Your task to perform on an android device: Open Google Maps Image 0: 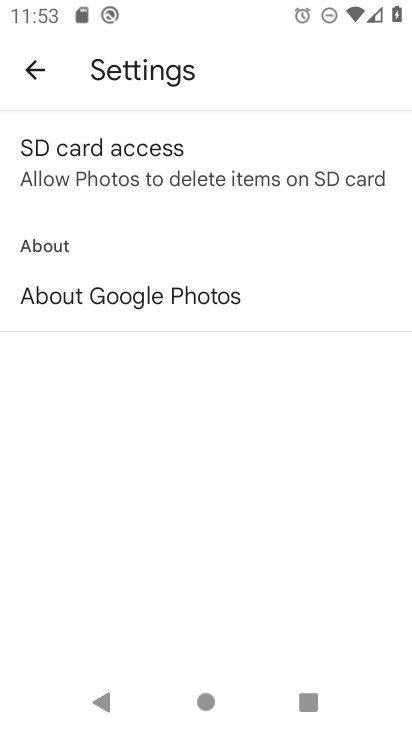
Step 0: press home button
Your task to perform on an android device: Open Google Maps Image 1: 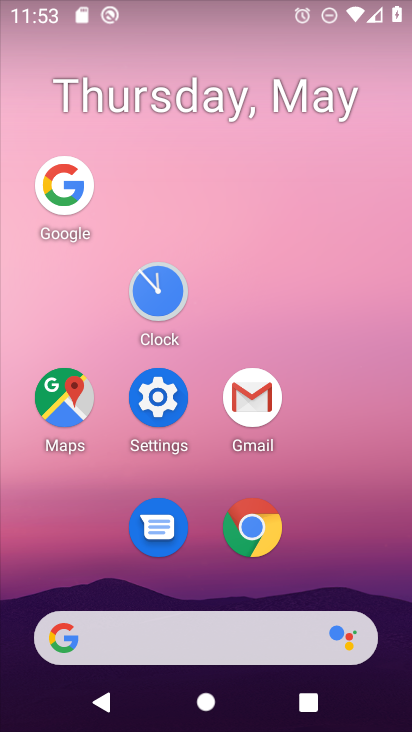
Step 1: click (66, 403)
Your task to perform on an android device: Open Google Maps Image 2: 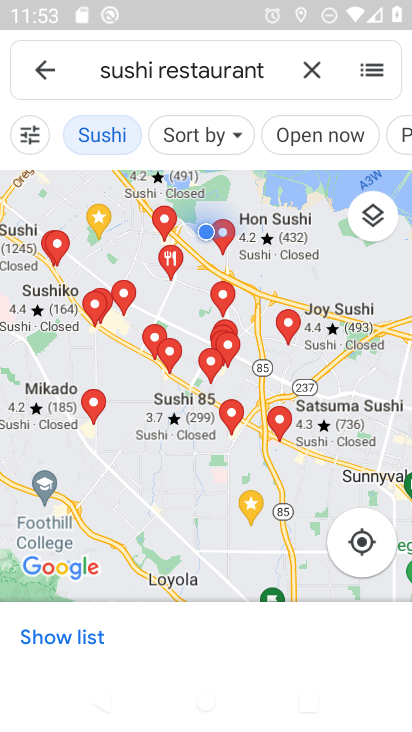
Step 2: task complete